Your task to perform on an android device: Open Maps and search for coffee Image 0: 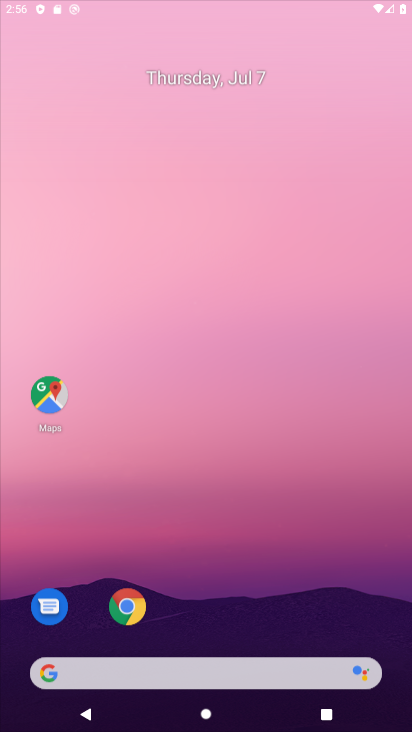
Step 0: press home button
Your task to perform on an android device: Open Maps and search for coffee Image 1: 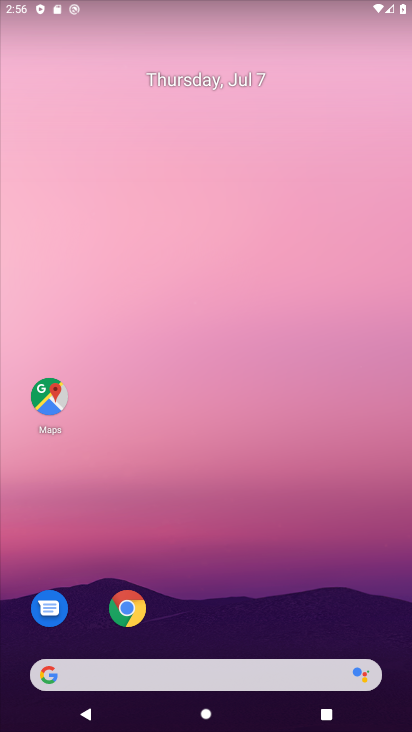
Step 1: press home button
Your task to perform on an android device: Open Maps and search for coffee Image 2: 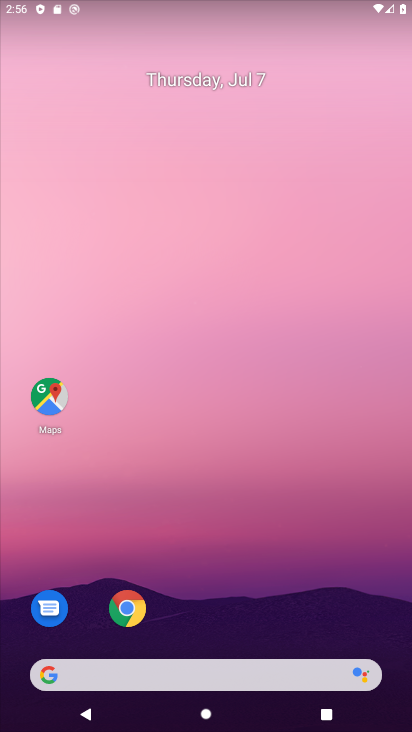
Step 2: click (48, 391)
Your task to perform on an android device: Open Maps and search for coffee Image 3: 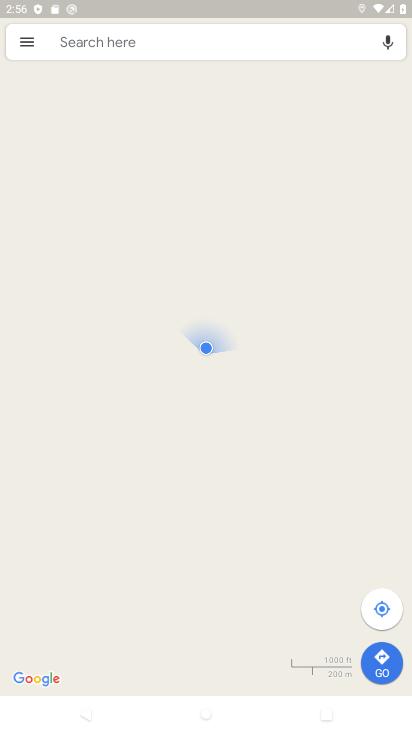
Step 3: click (102, 35)
Your task to perform on an android device: Open Maps and search for coffee Image 4: 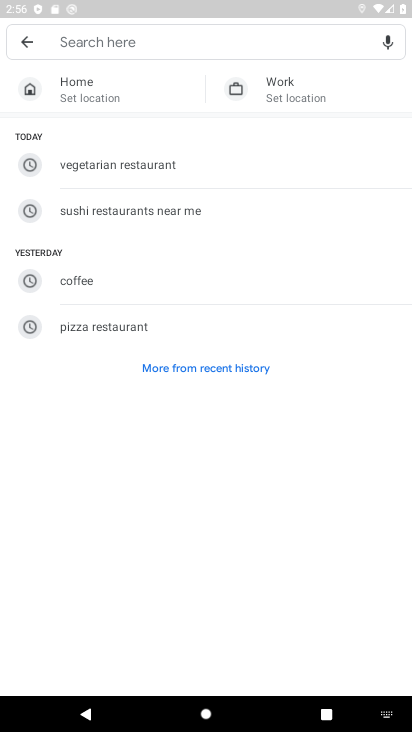
Step 4: type "coffee"
Your task to perform on an android device: Open Maps and search for coffee Image 5: 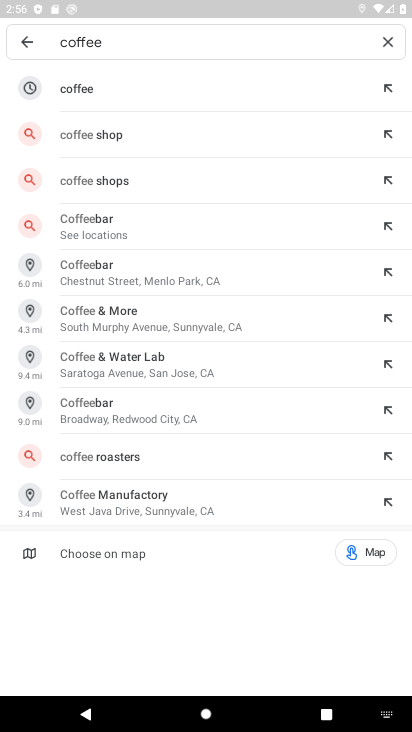
Step 5: click (104, 76)
Your task to perform on an android device: Open Maps and search for coffee Image 6: 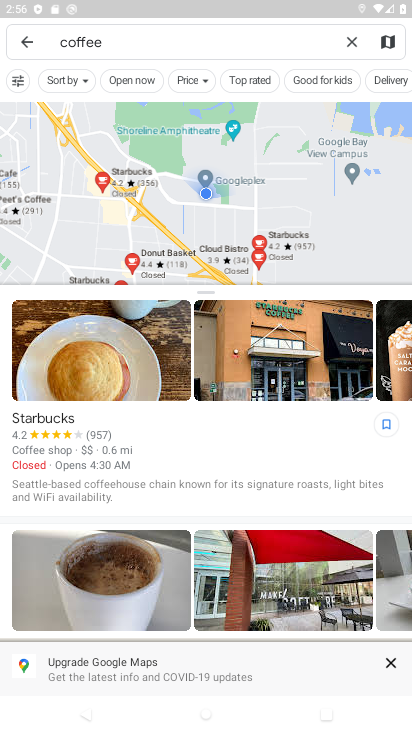
Step 6: task complete